Your task to perform on an android device: What's the weather going to be tomorrow? Image 0: 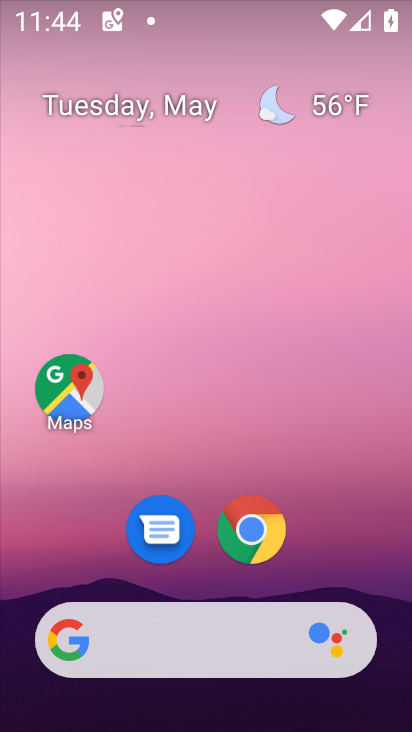
Step 0: click (383, 290)
Your task to perform on an android device: What's the weather going to be tomorrow? Image 1: 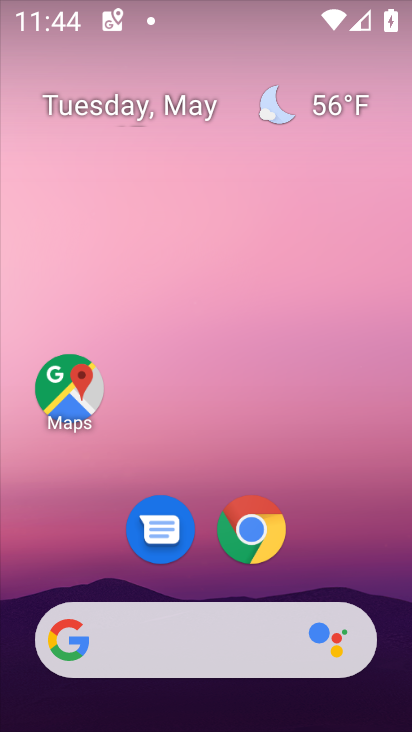
Step 1: click (322, 97)
Your task to perform on an android device: What's the weather going to be tomorrow? Image 2: 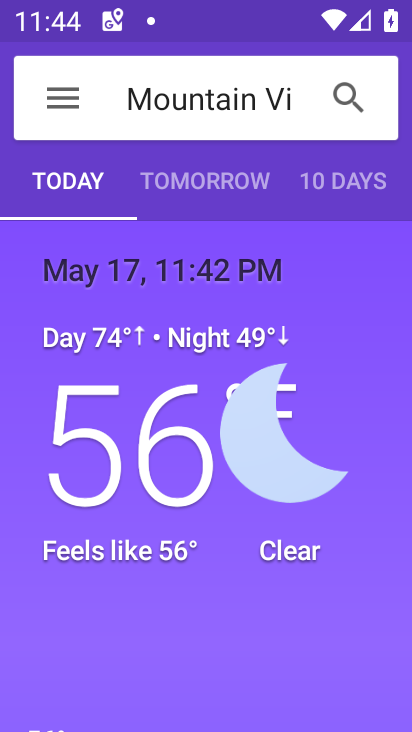
Step 2: click (209, 180)
Your task to perform on an android device: What's the weather going to be tomorrow? Image 3: 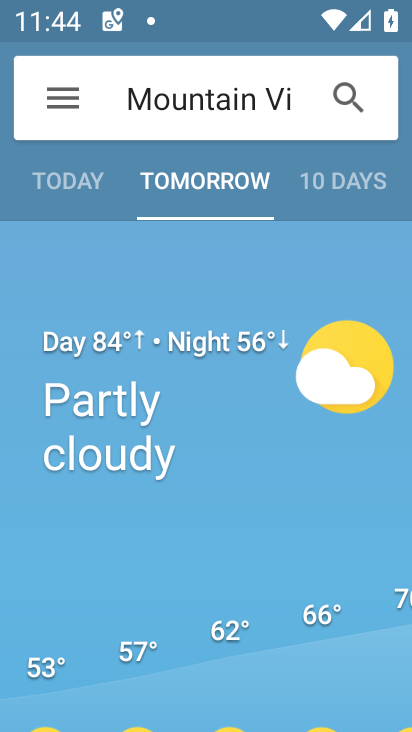
Step 3: task complete